Your task to perform on an android device: Add razer thresher to the cart on ebay.com Image 0: 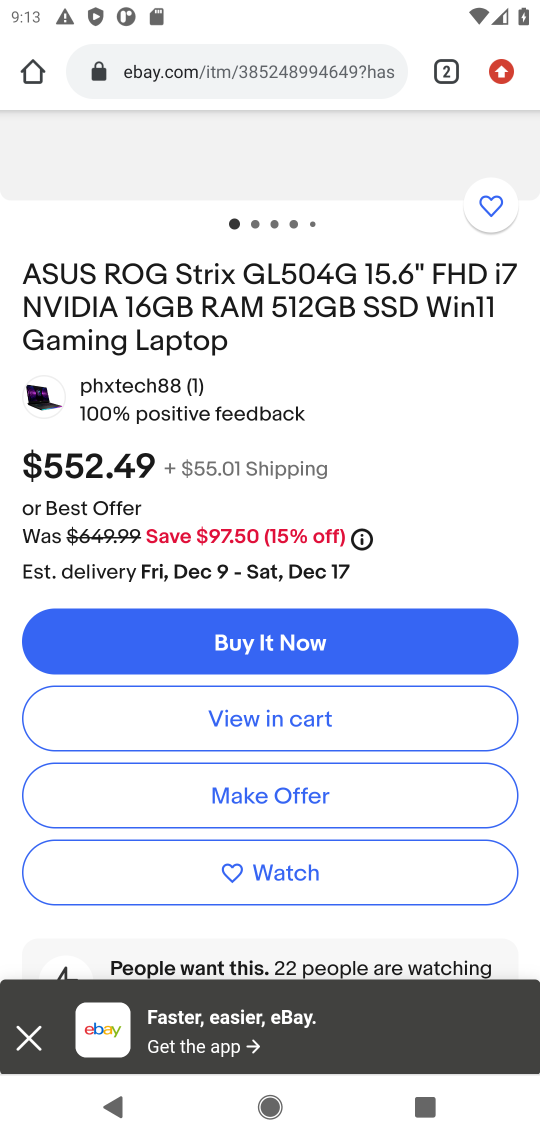
Step 0: drag from (445, 381) to (444, 751)
Your task to perform on an android device: Add razer thresher to the cart on ebay.com Image 1: 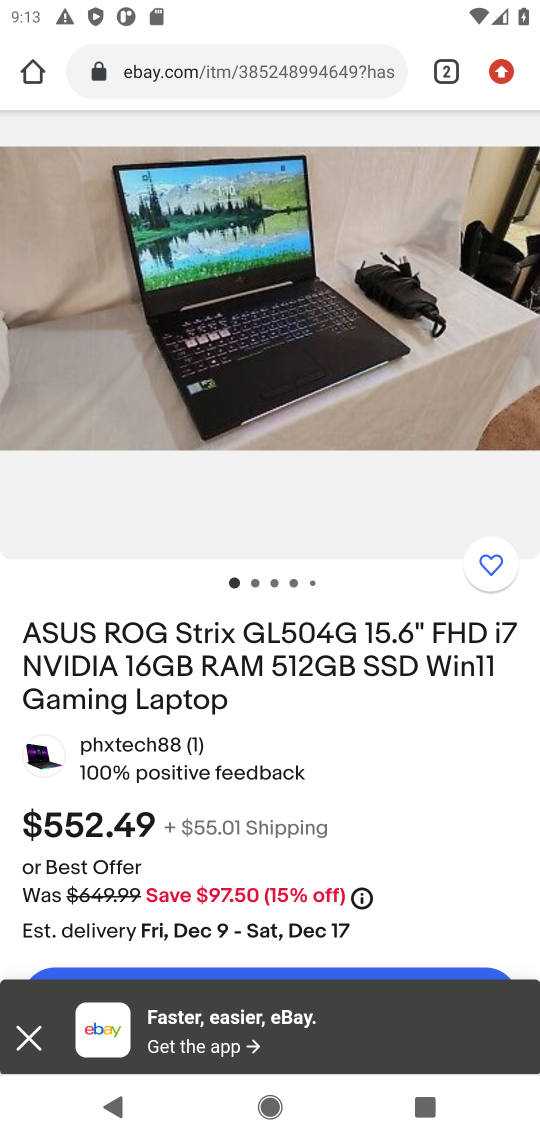
Step 1: drag from (317, 354) to (238, 696)
Your task to perform on an android device: Add razer thresher to the cart on ebay.com Image 2: 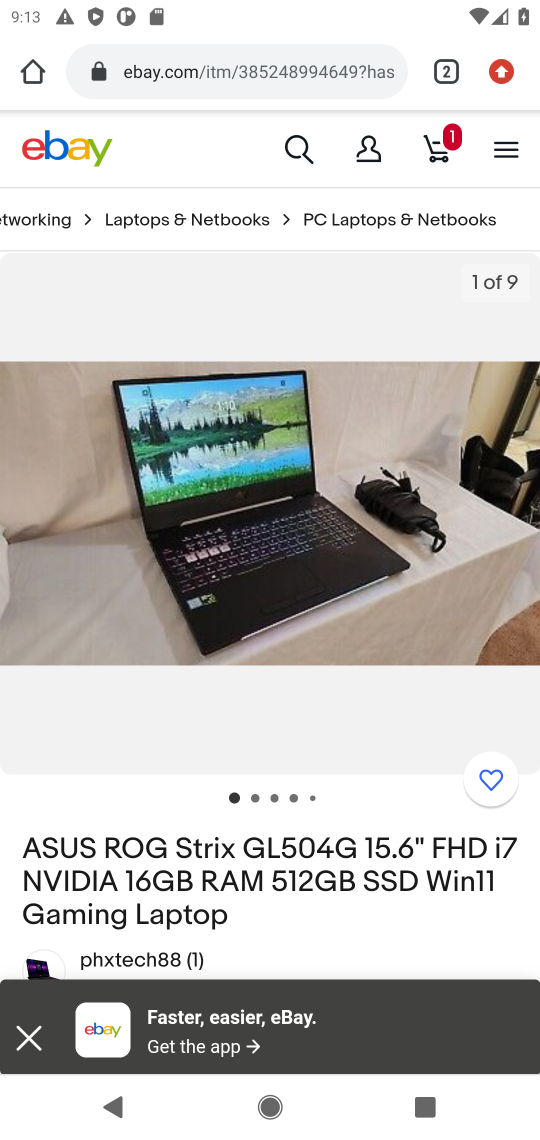
Step 2: drag from (430, 265) to (398, 543)
Your task to perform on an android device: Add razer thresher to the cart on ebay.com Image 3: 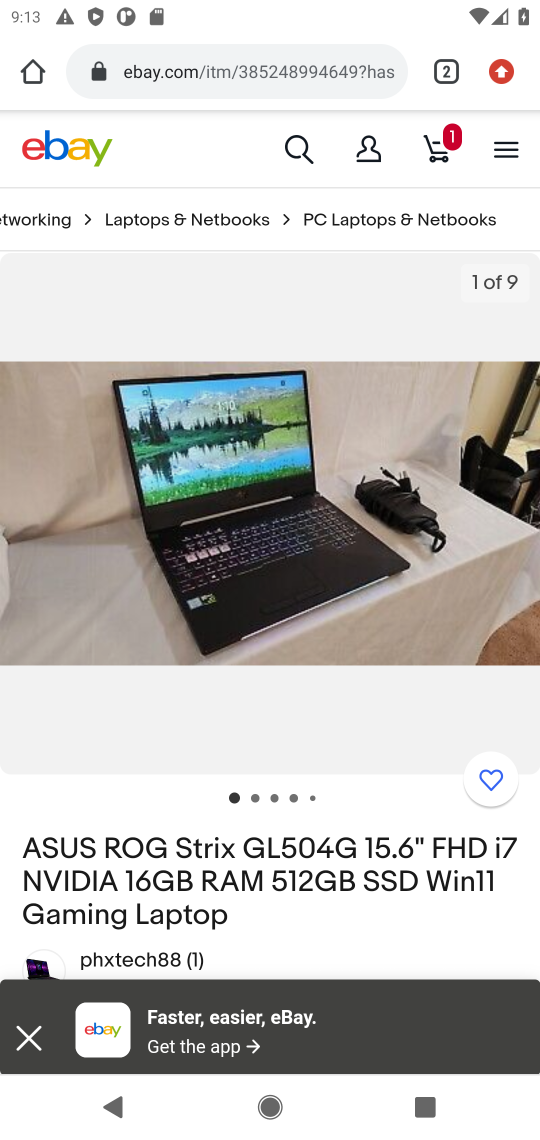
Step 3: click (302, 153)
Your task to perform on an android device: Add razer thresher to the cart on ebay.com Image 4: 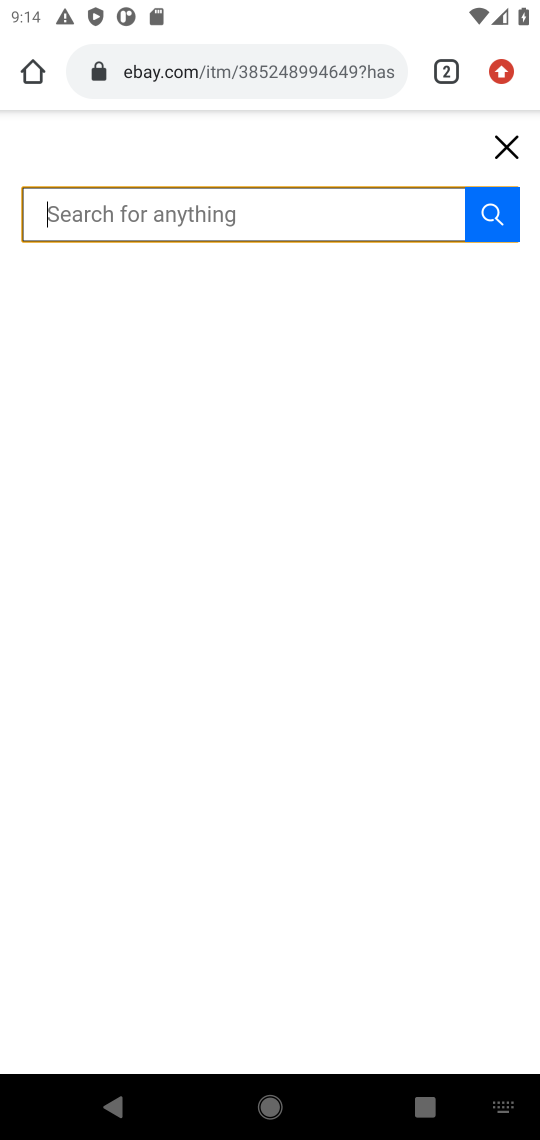
Step 4: type "razer thresher "
Your task to perform on an android device: Add razer thresher to the cart on ebay.com Image 5: 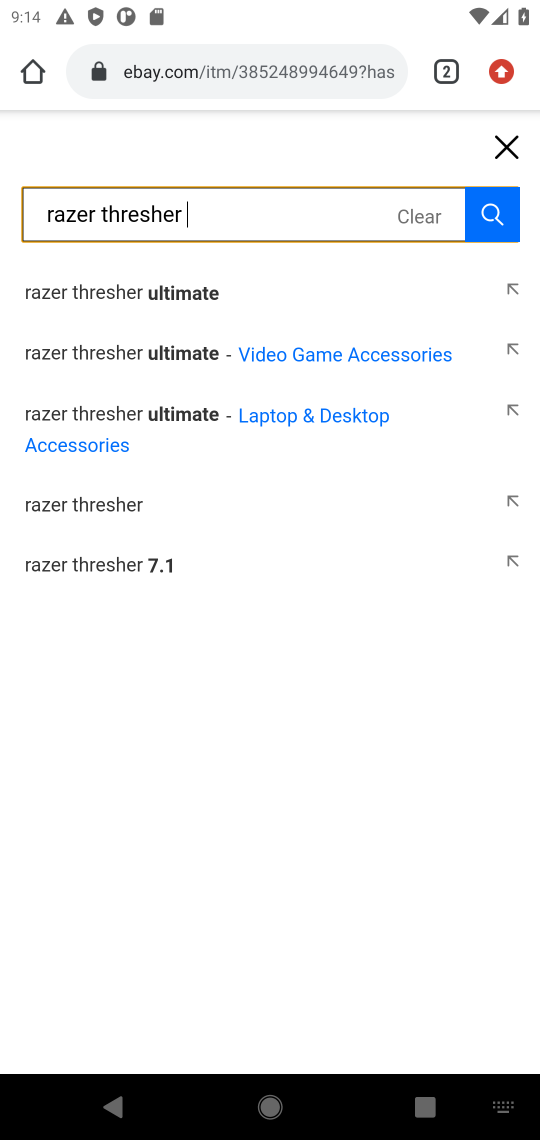
Step 5: click (494, 215)
Your task to perform on an android device: Add razer thresher to the cart on ebay.com Image 6: 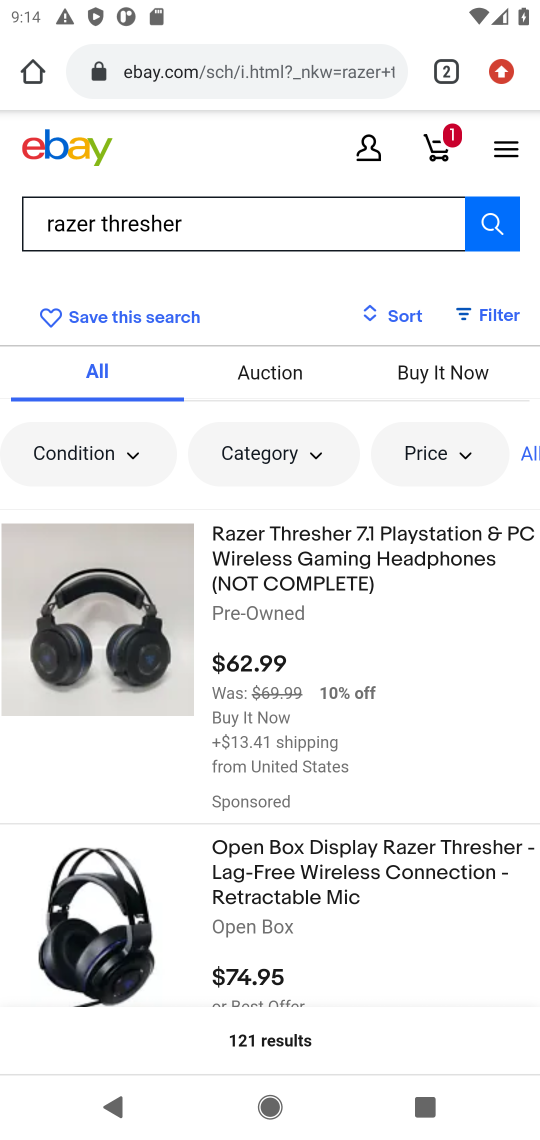
Step 6: click (230, 538)
Your task to perform on an android device: Add razer thresher to the cart on ebay.com Image 7: 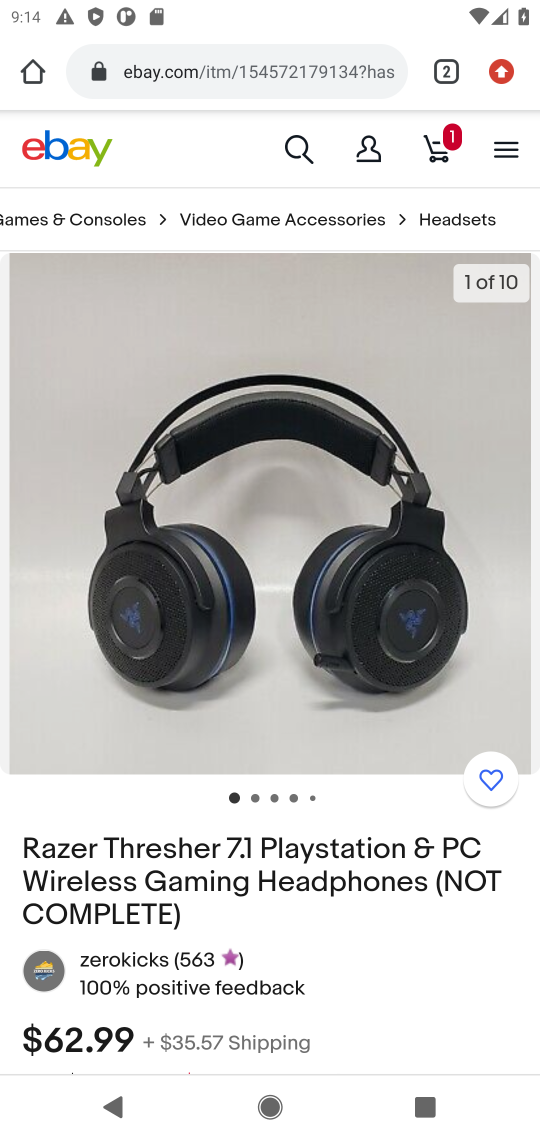
Step 7: drag from (252, 825) to (283, 359)
Your task to perform on an android device: Add razer thresher to the cart on ebay.com Image 8: 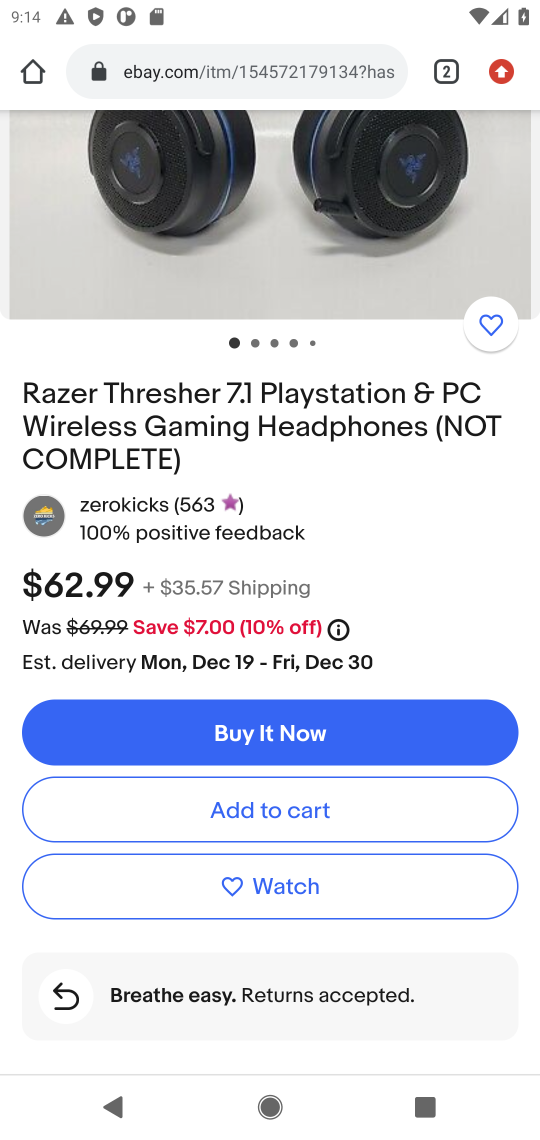
Step 8: click (204, 809)
Your task to perform on an android device: Add razer thresher to the cart on ebay.com Image 9: 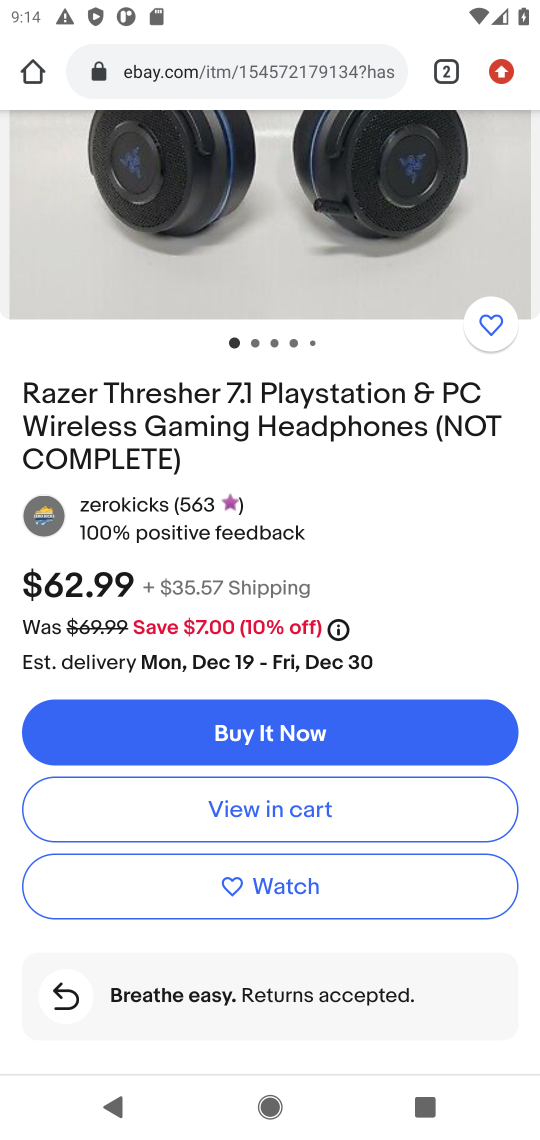
Step 9: task complete